Your task to perform on an android device: see tabs open on other devices in the chrome app Image 0: 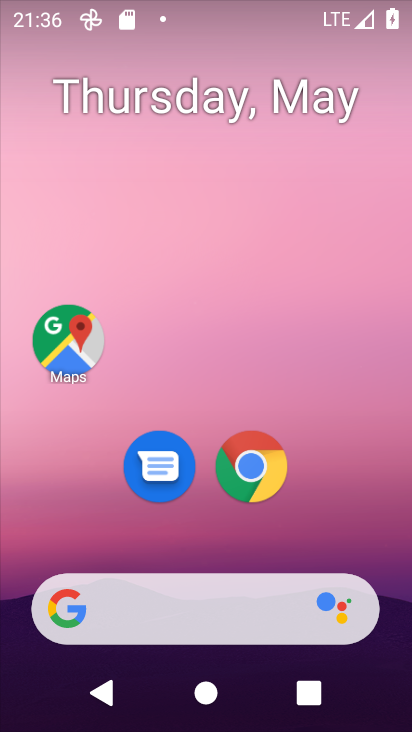
Step 0: click (274, 488)
Your task to perform on an android device: see tabs open on other devices in the chrome app Image 1: 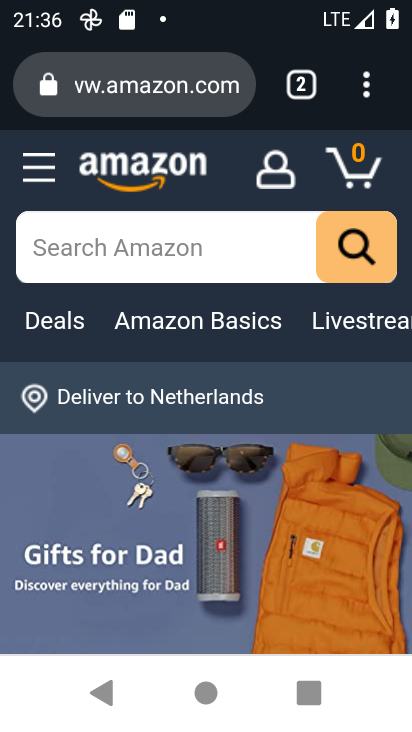
Step 1: click (366, 78)
Your task to perform on an android device: see tabs open on other devices in the chrome app Image 2: 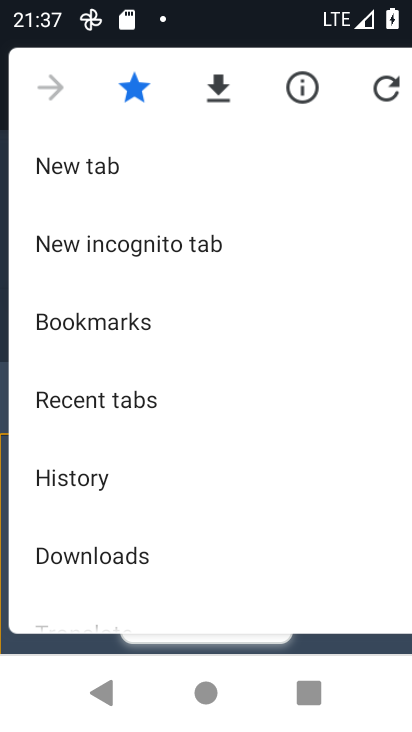
Step 2: click (111, 400)
Your task to perform on an android device: see tabs open on other devices in the chrome app Image 3: 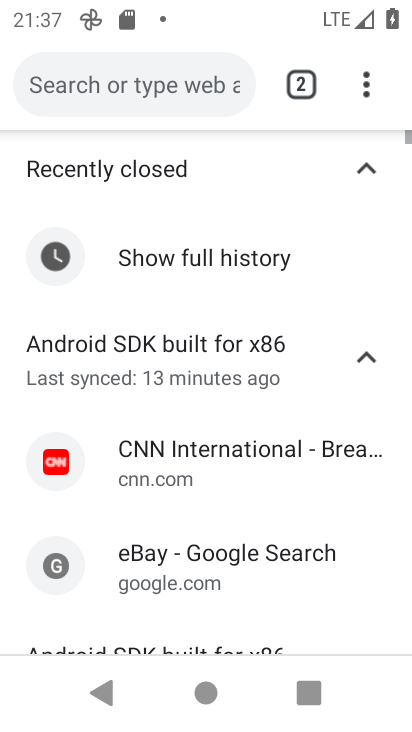
Step 3: task complete